Your task to perform on an android device: Go to privacy settings Image 0: 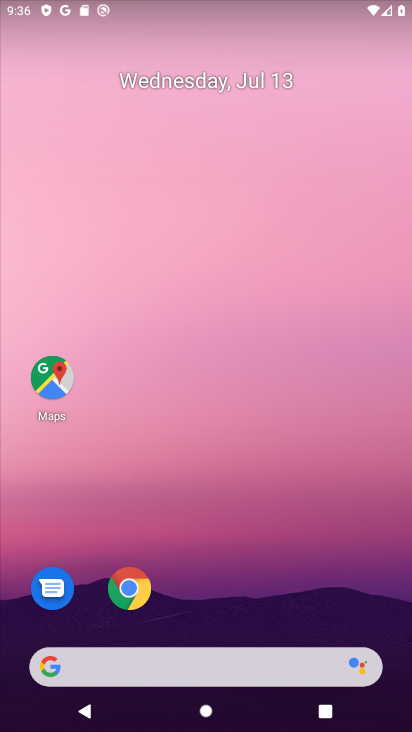
Step 0: drag from (221, 608) to (193, 155)
Your task to perform on an android device: Go to privacy settings Image 1: 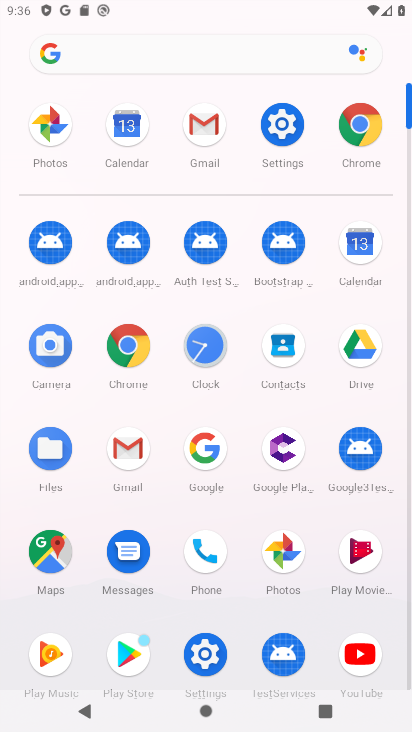
Step 1: click (285, 124)
Your task to perform on an android device: Go to privacy settings Image 2: 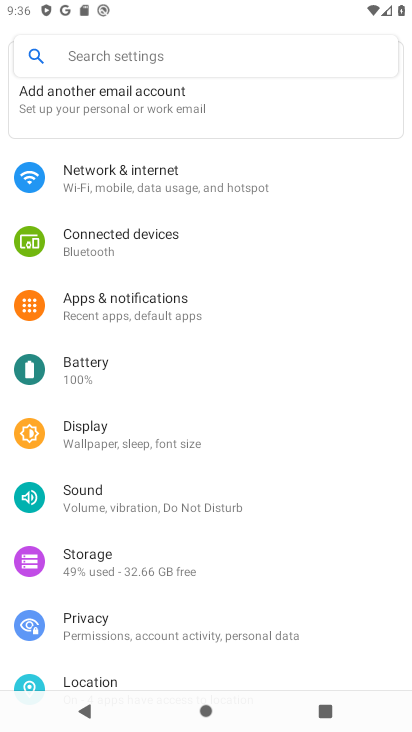
Step 2: click (125, 622)
Your task to perform on an android device: Go to privacy settings Image 3: 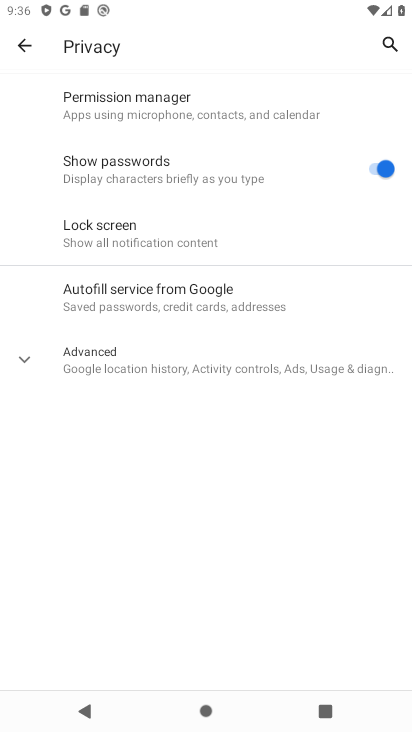
Step 3: task complete